Your task to perform on an android device: change your default location settings in chrome Image 0: 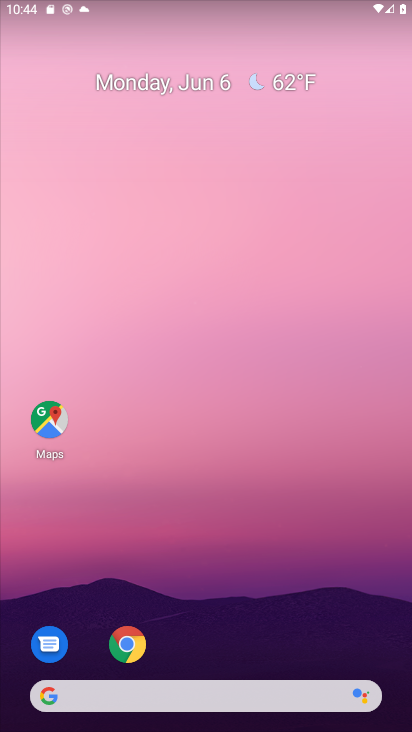
Step 0: click (114, 651)
Your task to perform on an android device: change your default location settings in chrome Image 1: 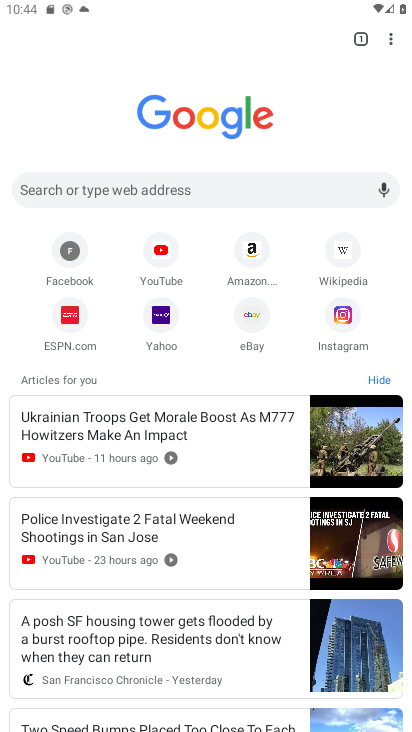
Step 1: click (386, 34)
Your task to perform on an android device: change your default location settings in chrome Image 2: 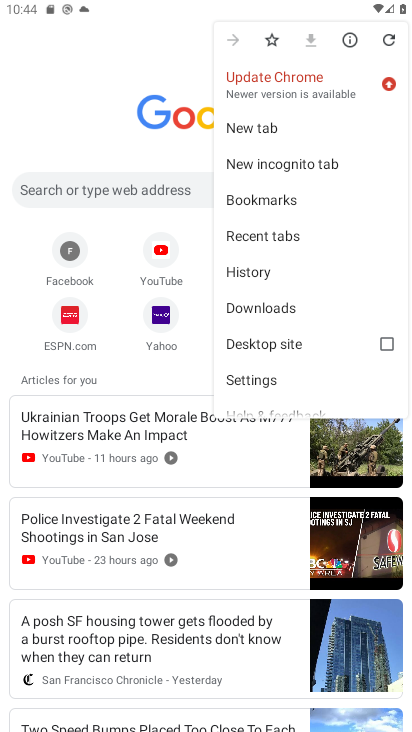
Step 2: click (241, 376)
Your task to perform on an android device: change your default location settings in chrome Image 3: 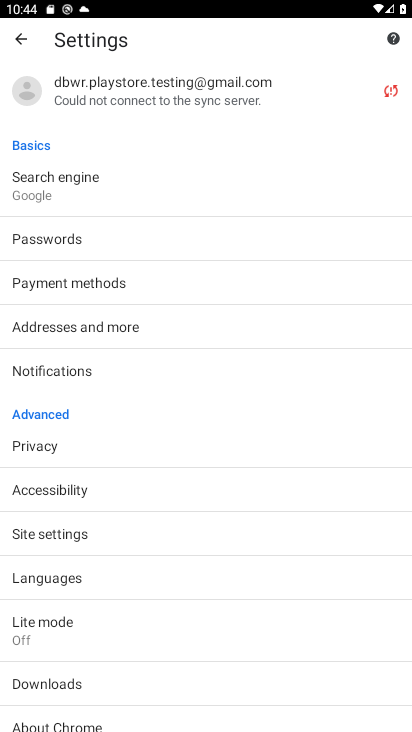
Step 3: click (39, 533)
Your task to perform on an android device: change your default location settings in chrome Image 4: 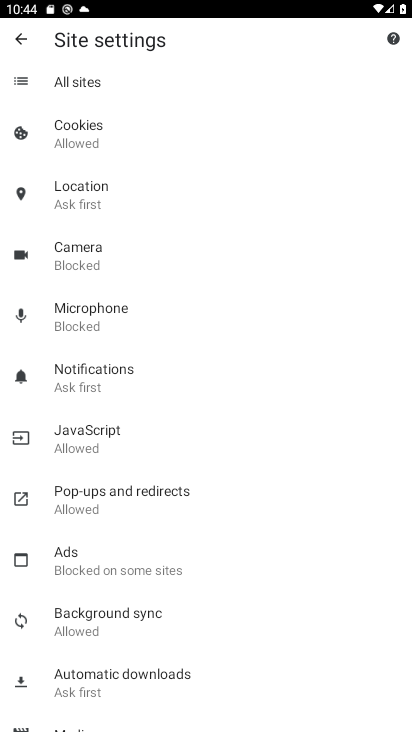
Step 4: click (82, 181)
Your task to perform on an android device: change your default location settings in chrome Image 5: 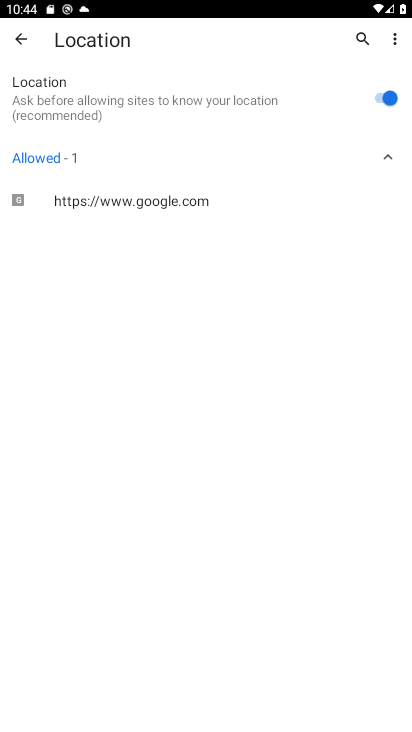
Step 5: click (377, 87)
Your task to perform on an android device: change your default location settings in chrome Image 6: 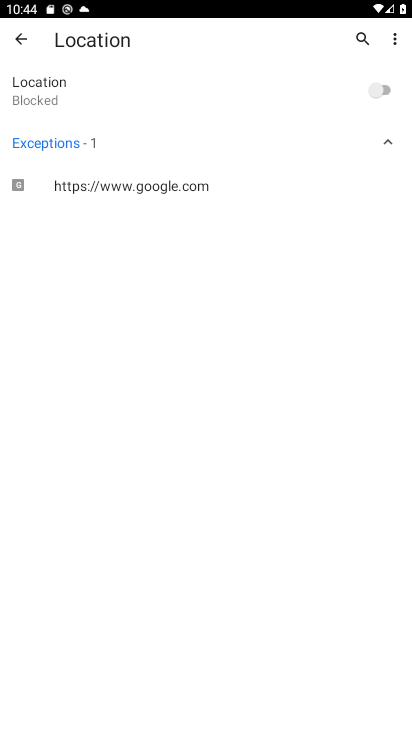
Step 6: task complete